Your task to perform on an android device: clear history in the chrome app Image 0: 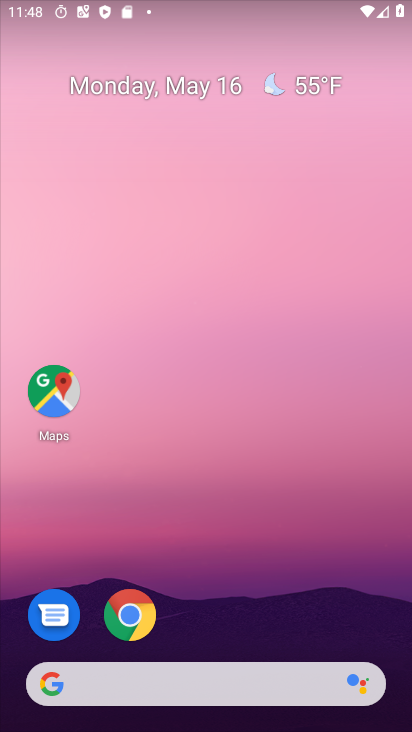
Step 0: click (129, 622)
Your task to perform on an android device: clear history in the chrome app Image 1: 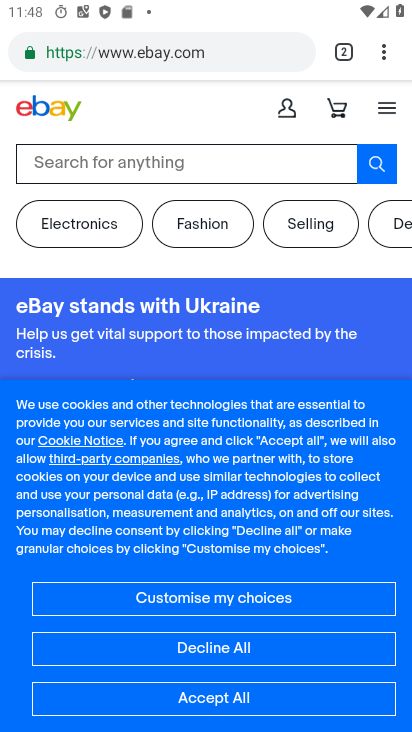
Step 1: drag from (386, 50) to (210, 626)
Your task to perform on an android device: clear history in the chrome app Image 2: 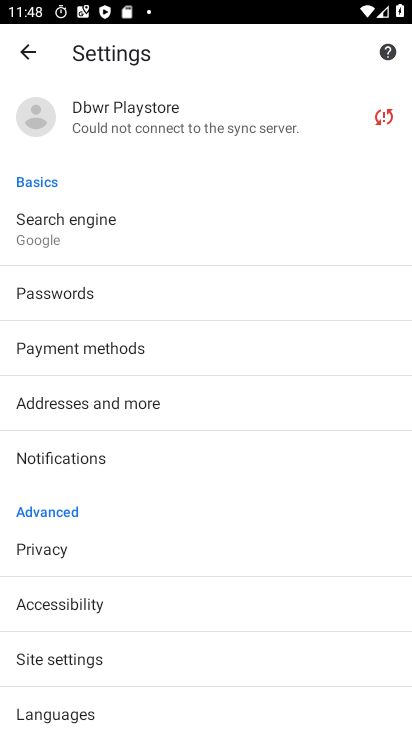
Step 2: click (44, 547)
Your task to perform on an android device: clear history in the chrome app Image 3: 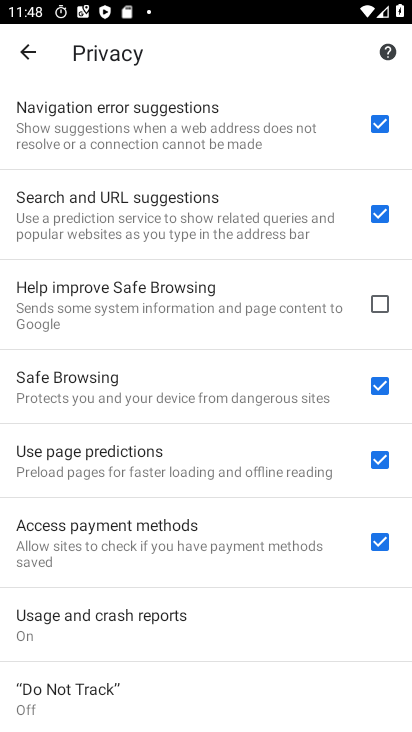
Step 3: drag from (251, 630) to (271, 180)
Your task to perform on an android device: clear history in the chrome app Image 4: 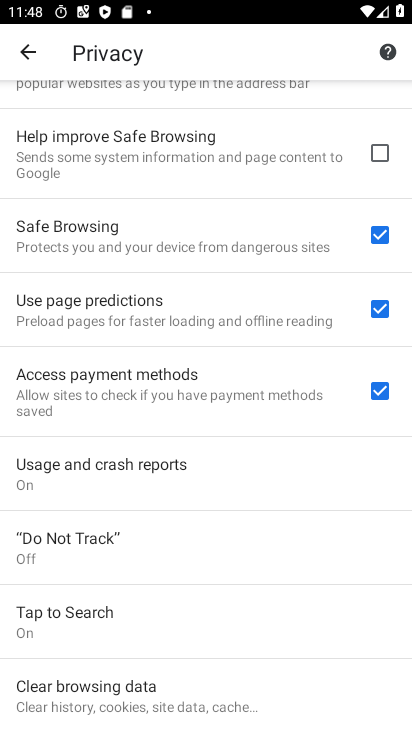
Step 4: click (125, 692)
Your task to perform on an android device: clear history in the chrome app Image 5: 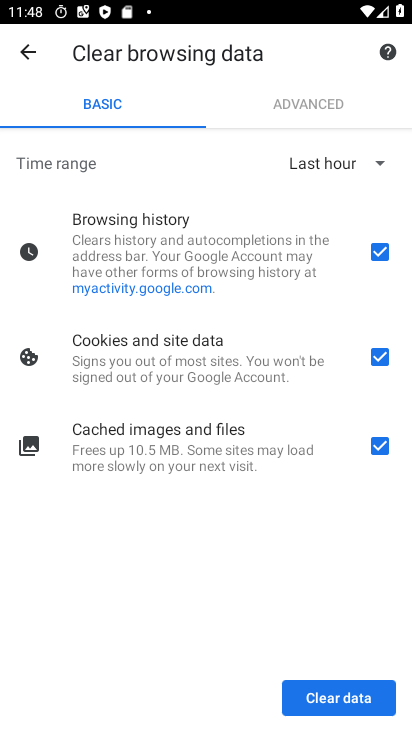
Step 5: click (345, 692)
Your task to perform on an android device: clear history in the chrome app Image 6: 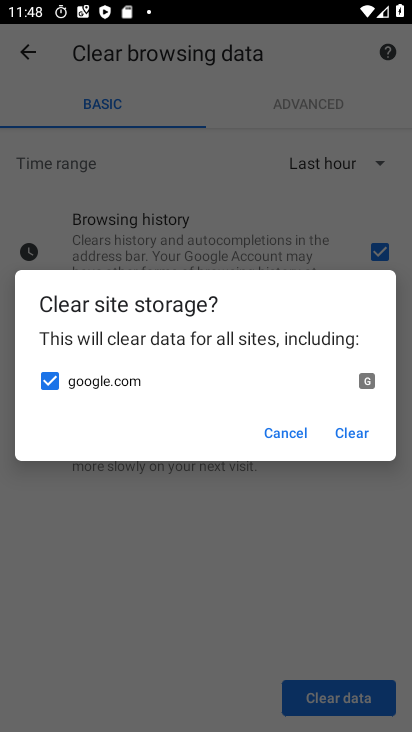
Step 6: click (339, 431)
Your task to perform on an android device: clear history in the chrome app Image 7: 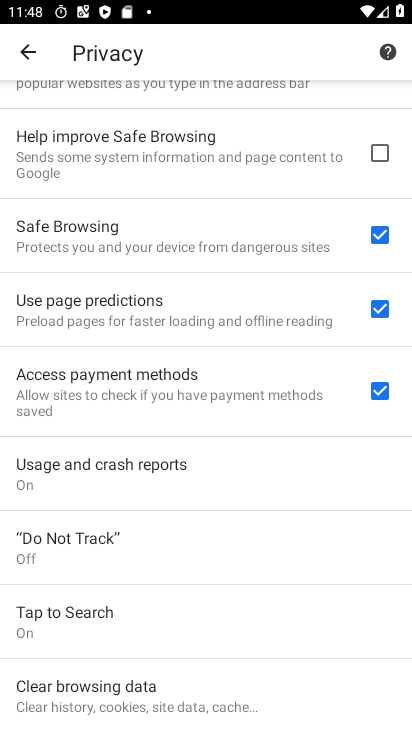
Step 7: task complete